Your task to perform on an android device: Open the phone app and click the voicemail tab. Image 0: 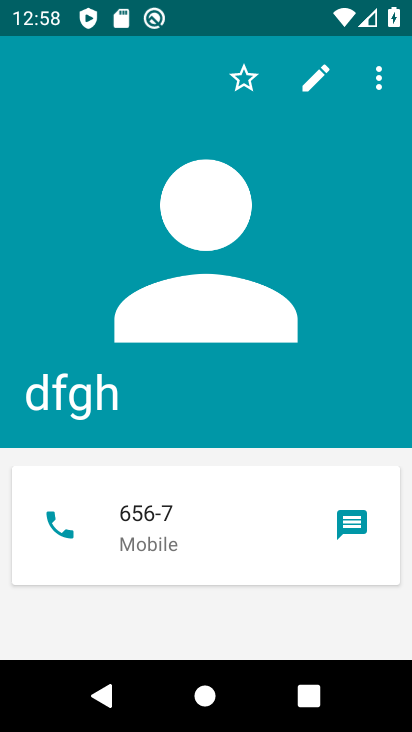
Step 0: press back button
Your task to perform on an android device: Open the phone app and click the voicemail tab. Image 1: 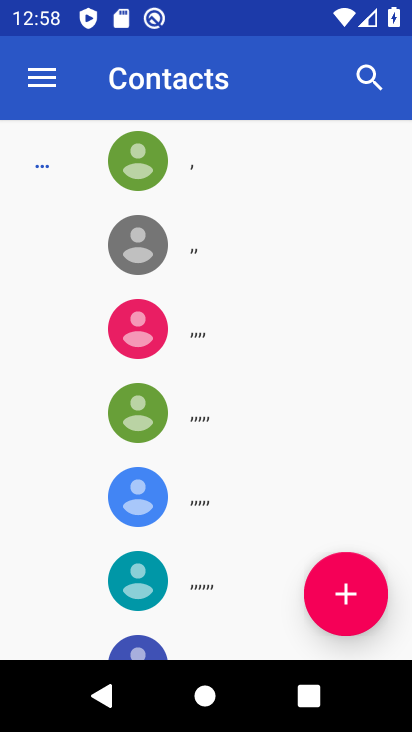
Step 1: press back button
Your task to perform on an android device: Open the phone app and click the voicemail tab. Image 2: 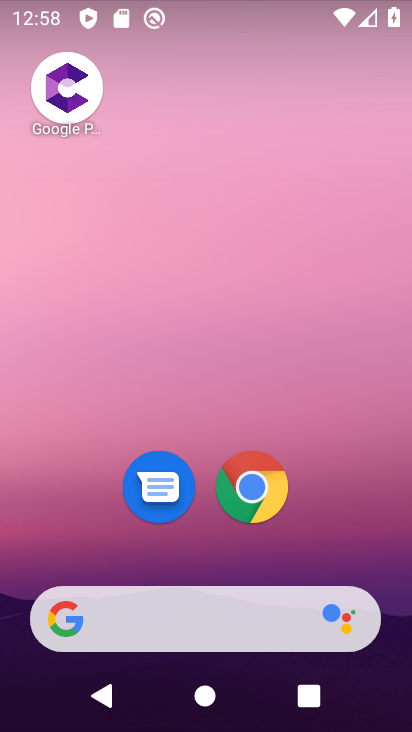
Step 2: drag from (331, 561) to (266, 97)
Your task to perform on an android device: Open the phone app and click the voicemail tab. Image 3: 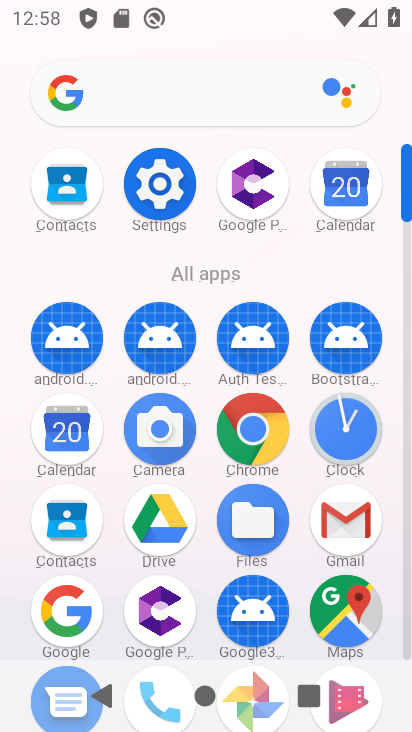
Step 3: drag from (9, 579) to (27, 303)
Your task to perform on an android device: Open the phone app and click the voicemail tab. Image 4: 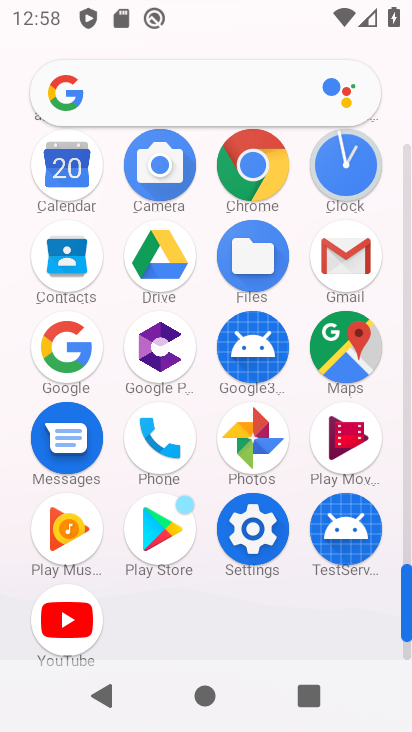
Step 4: click (152, 432)
Your task to perform on an android device: Open the phone app and click the voicemail tab. Image 5: 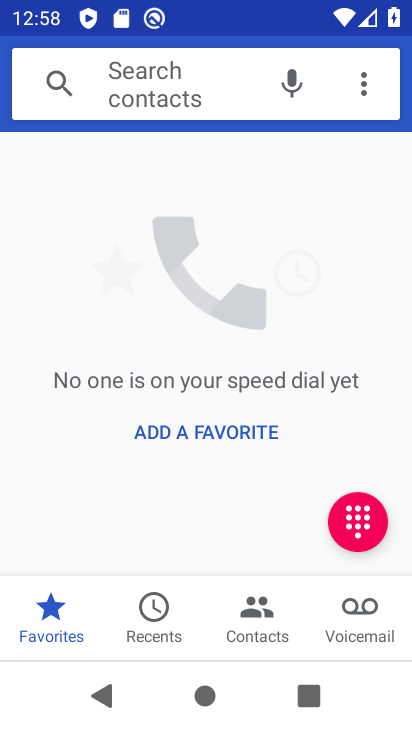
Step 5: click (379, 614)
Your task to perform on an android device: Open the phone app and click the voicemail tab. Image 6: 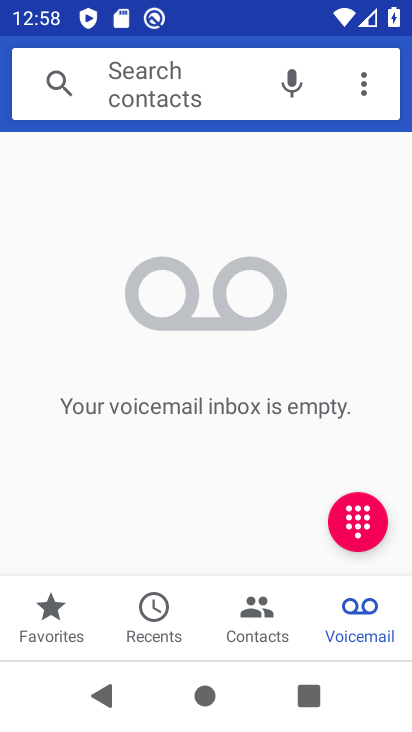
Step 6: task complete